Your task to perform on an android device: Show me popular games on the Play Store Image 0: 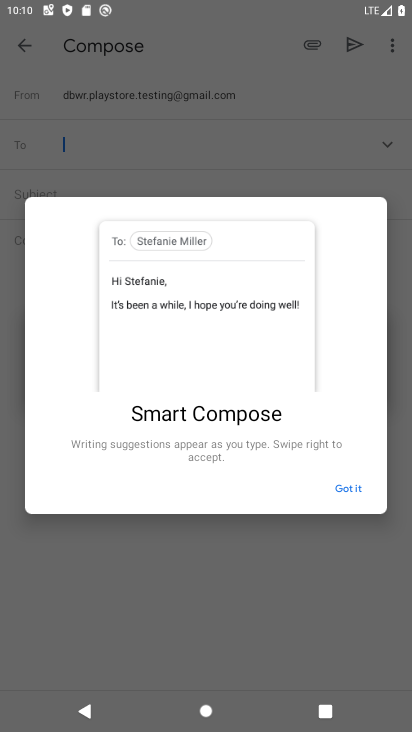
Step 0: press home button
Your task to perform on an android device: Show me popular games on the Play Store Image 1: 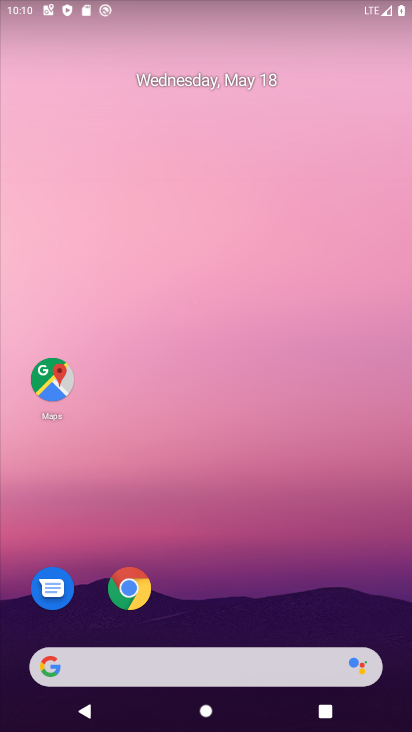
Step 1: drag from (338, 627) to (322, 13)
Your task to perform on an android device: Show me popular games on the Play Store Image 2: 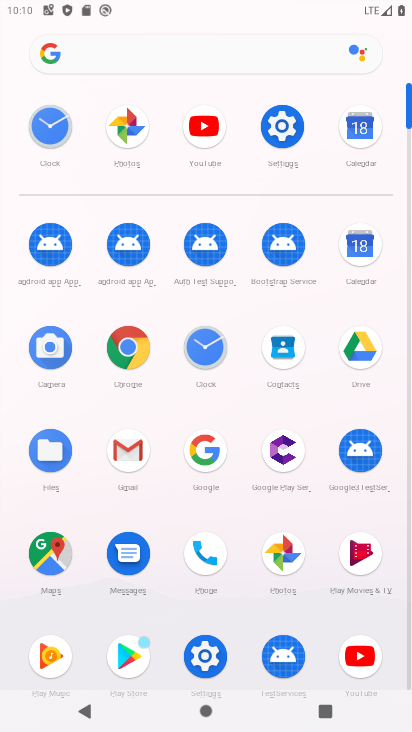
Step 2: click (132, 658)
Your task to perform on an android device: Show me popular games on the Play Store Image 3: 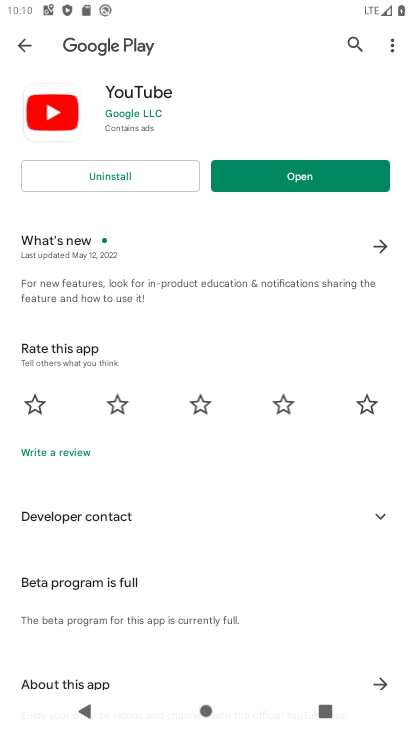
Step 3: click (23, 51)
Your task to perform on an android device: Show me popular games on the Play Store Image 4: 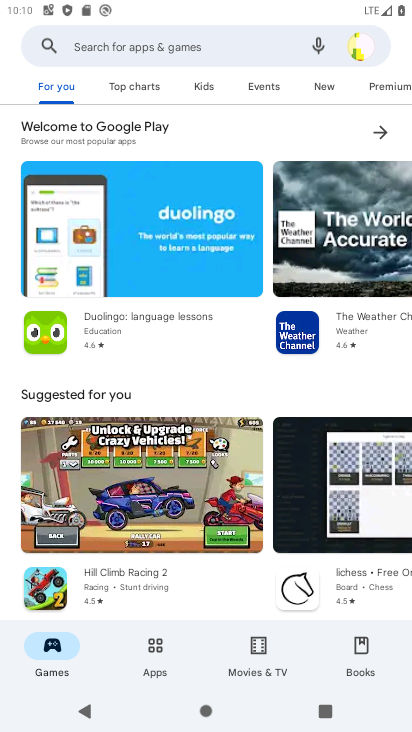
Step 4: drag from (174, 518) to (172, 221)
Your task to perform on an android device: Show me popular games on the Play Store Image 5: 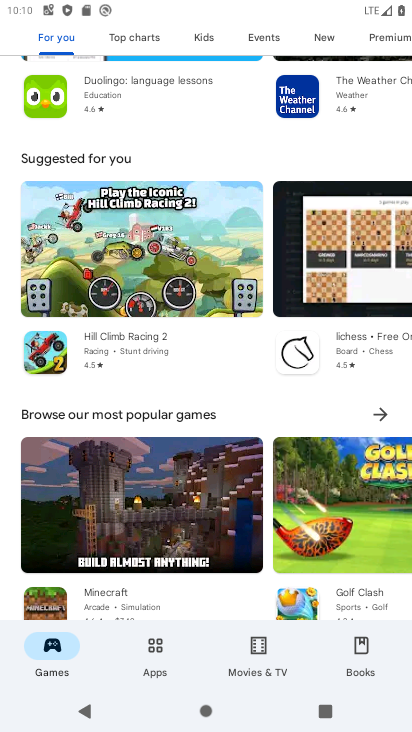
Step 5: click (180, 419)
Your task to perform on an android device: Show me popular games on the Play Store Image 6: 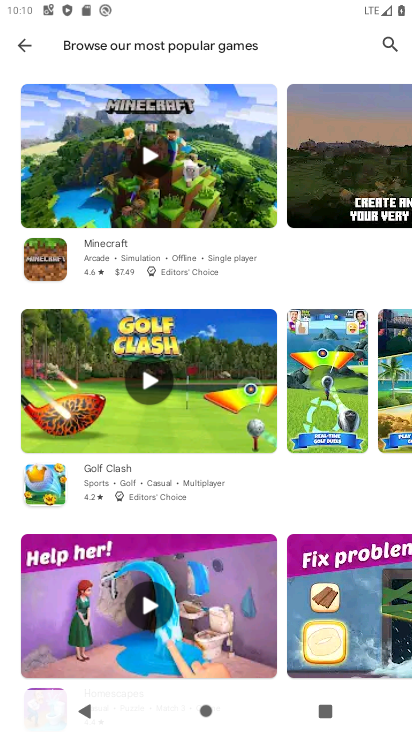
Step 6: task complete